Your task to perform on an android device: toggle sleep mode Image 0: 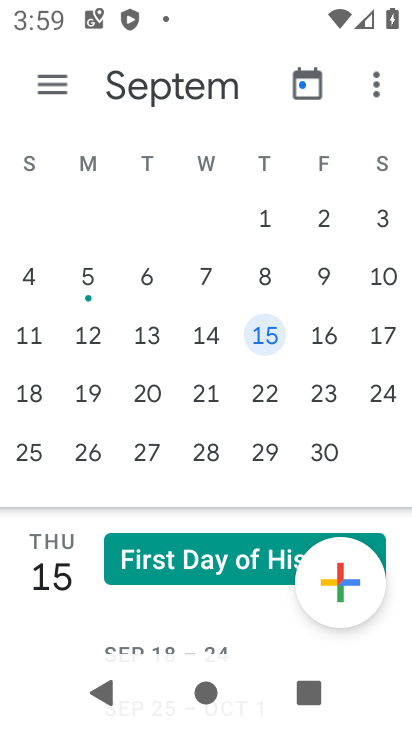
Step 0: press home button
Your task to perform on an android device: toggle sleep mode Image 1: 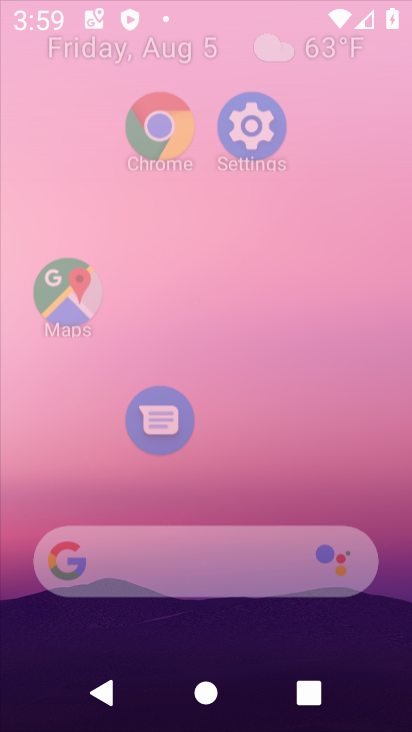
Step 1: press home button
Your task to perform on an android device: toggle sleep mode Image 2: 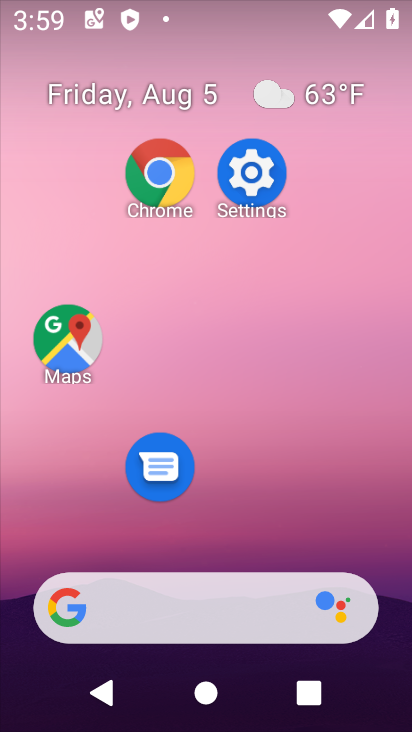
Step 2: drag from (401, 686) to (394, 70)
Your task to perform on an android device: toggle sleep mode Image 3: 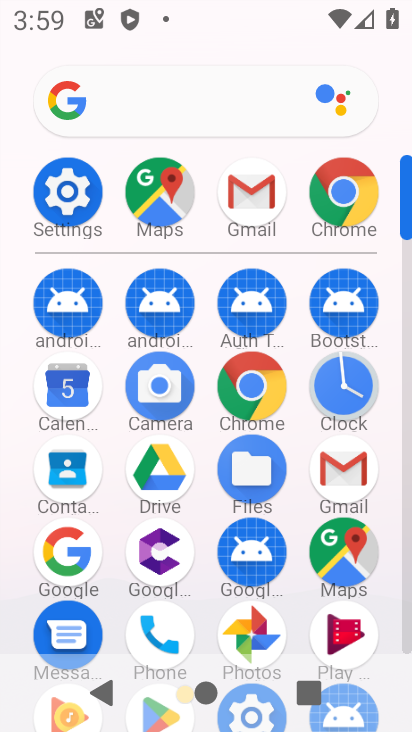
Step 3: drag from (187, 592) to (221, 167)
Your task to perform on an android device: toggle sleep mode Image 4: 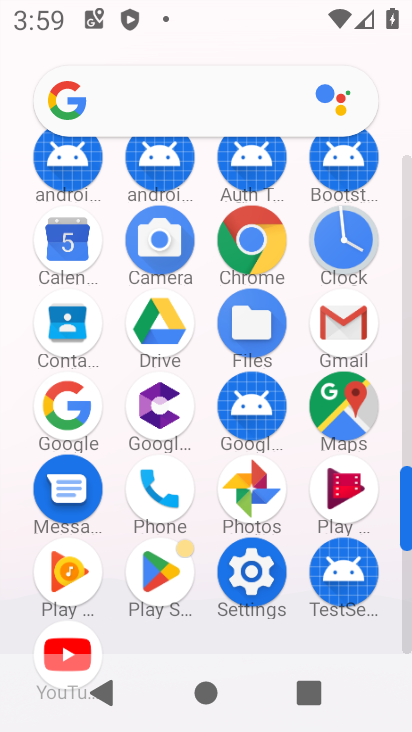
Step 4: click (261, 601)
Your task to perform on an android device: toggle sleep mode Image 5: 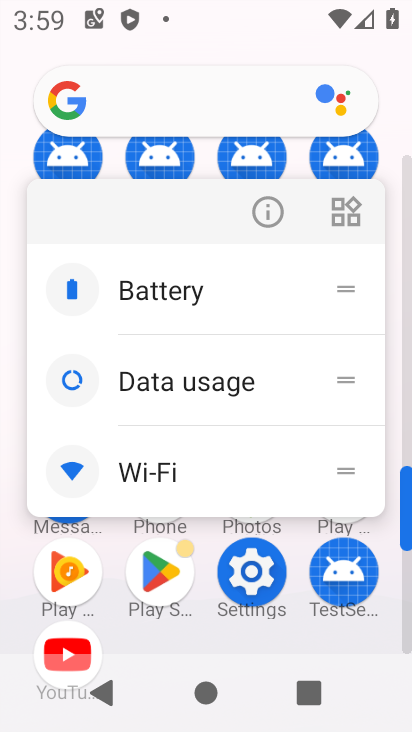
Step 5: click (261, 601)
Your task to perform on an android device: toggle sleep mode Image 6: 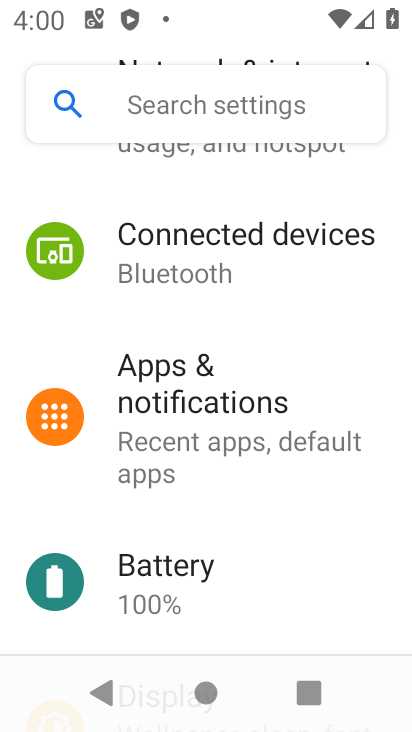
Step 6: drag from (132, 593) to (69, 49)
Your task to perform on an android device: toggle sleep mode Image 7: 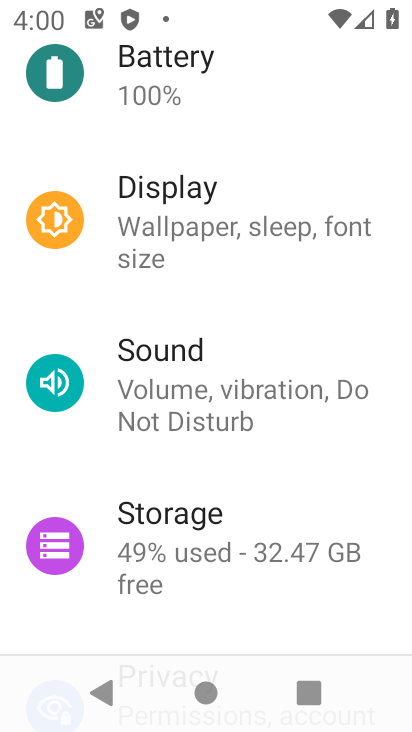
Step 7: drag from (257, 549) to (257, 396)
Your task to perform on an android device: toggle sleep mode Image 8: 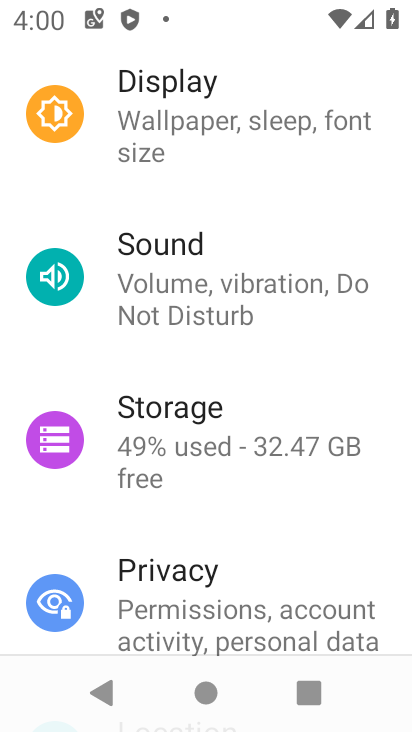
Step 8: drag from (150, 392) to (151, 713)
Your task to perform on an android device: toggle sleep mode Image 9: 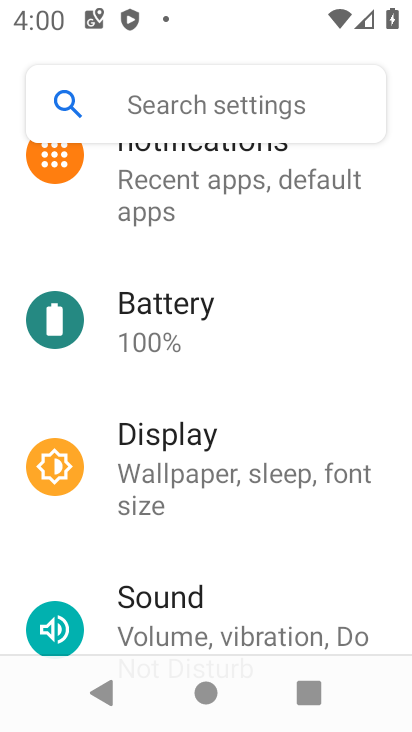
Step 9: drag from (202, 272) to (117, 725)
Your task to perform on an android device: toggle sleep mode Image 10: 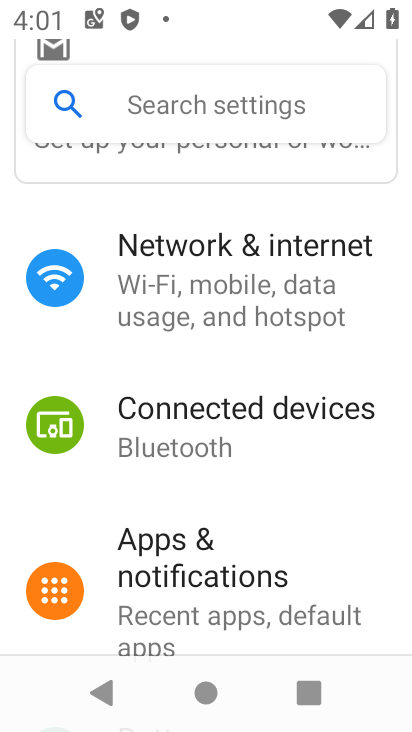
Step 10: drag from (115, 659) to (133, 104)
Your task to perform on an android device: toggle sleep mode Image 11: 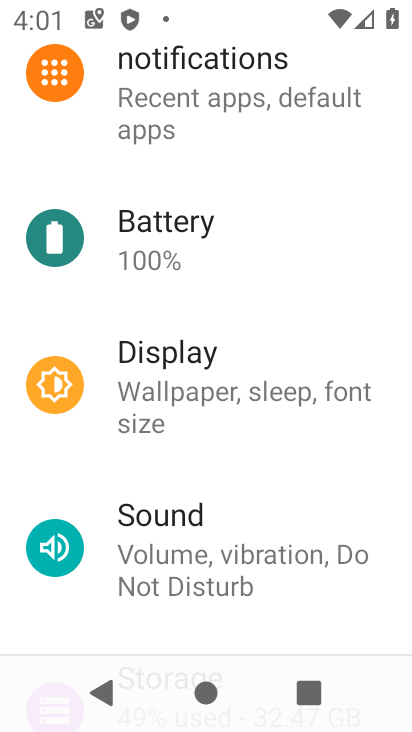
Step 11: drag from (170, 449) to (169, 61)
Your task to perform on an android device: toggle sleep mode Image 12: 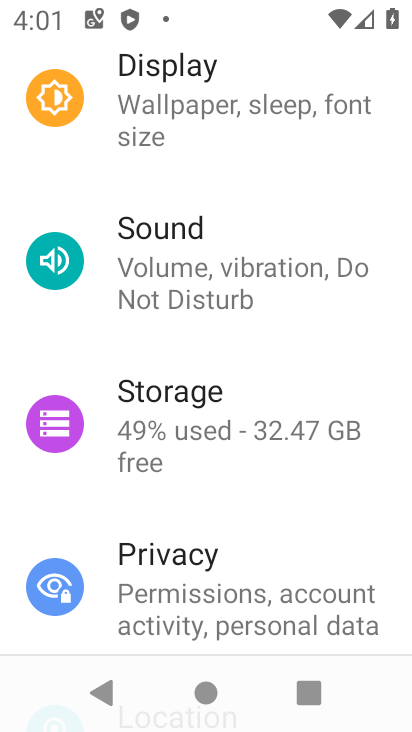
Step 12: click (120, 119)
Your task to perform on an android device: toggle sleep mode Image 13: 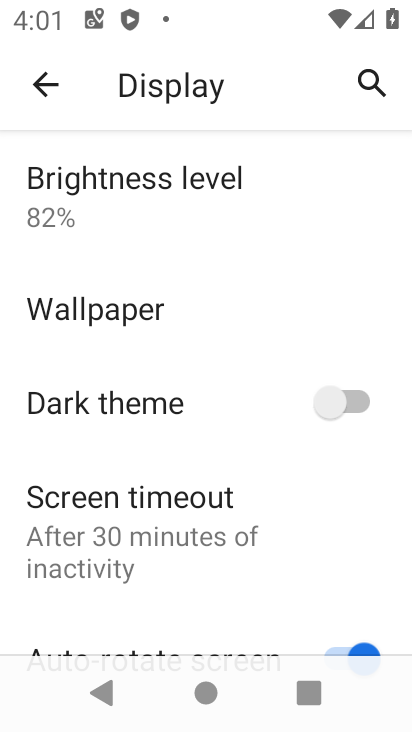
Step 13: task complete